Your task to perform on an android device: Open network settings Image 0: 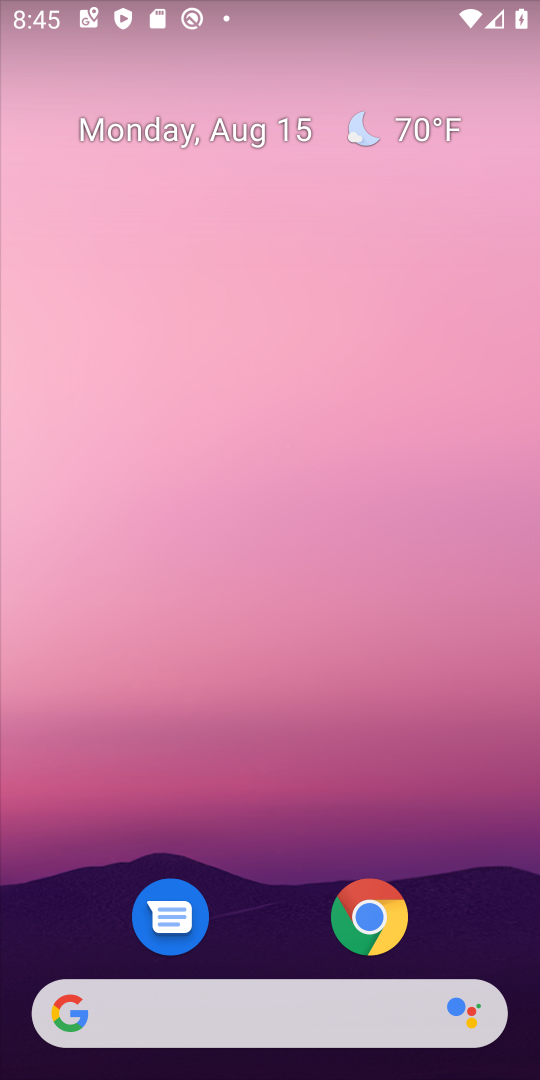
Step 0: drag from (284, 826) to (306, 21)
Your task to perform on an android device: Open network settings Image 1: 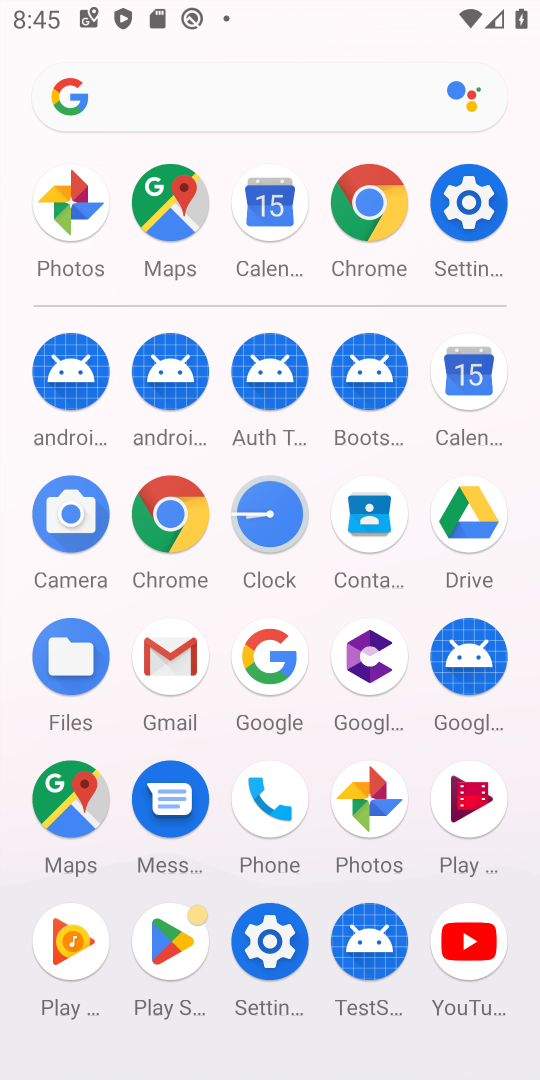
Step 1: click (461, 203)
Your task to perform on an android device: Open network settings Image 2: 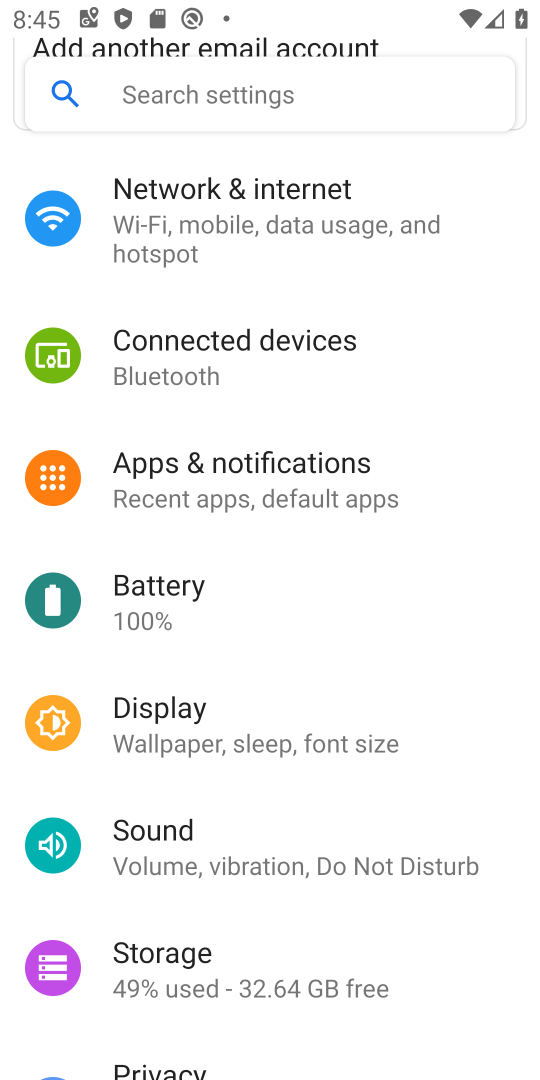
Step 2: click (289, 222)
Your task to perform on an android device: Open network settings Image 3: 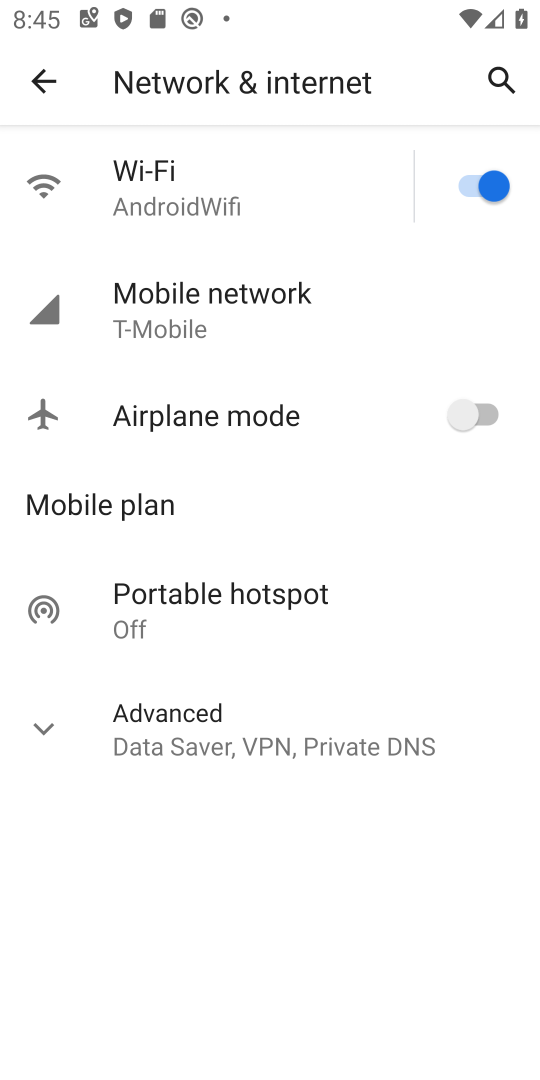
Step 3: task complete